Your task to perform on an android device: set default search engine in the chrome app Image 0: 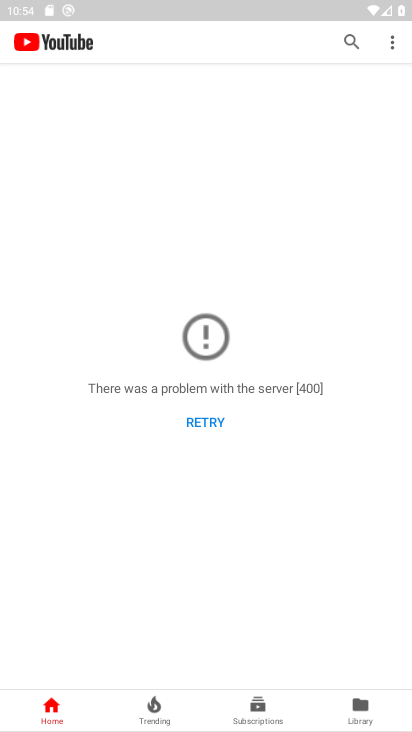
Step 0: press home button
Your task to perform on an android device: set default search engine in the chrome app Image 1: 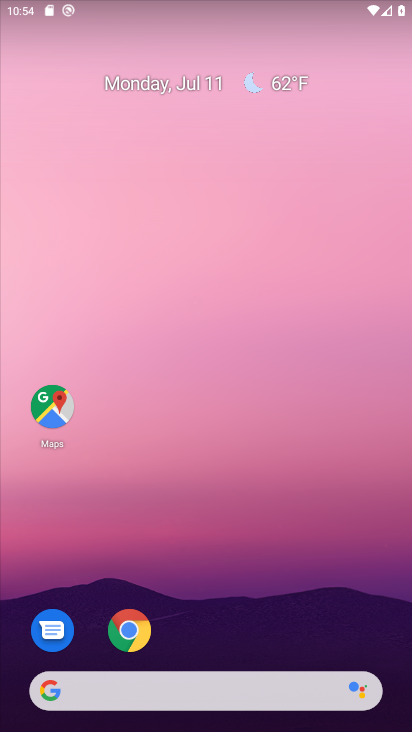
Step 1: click (139, 618)
Your task to perform on an android device: set default search engine in the chrome app Image 2: 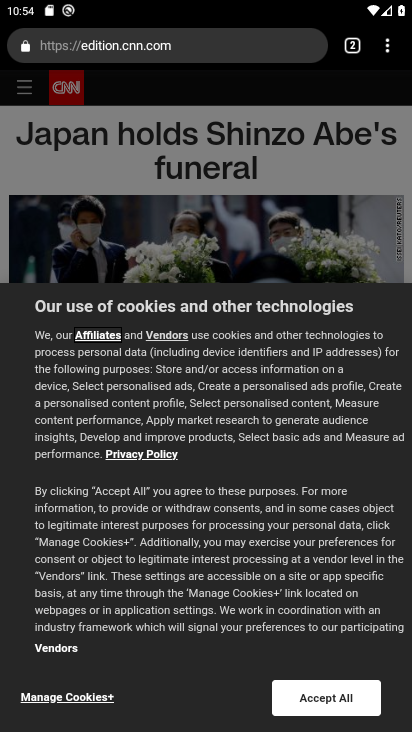
Step 2: click (386, 52)
Your task to perform on an android device: set default search engine in the chrome app Image 3: 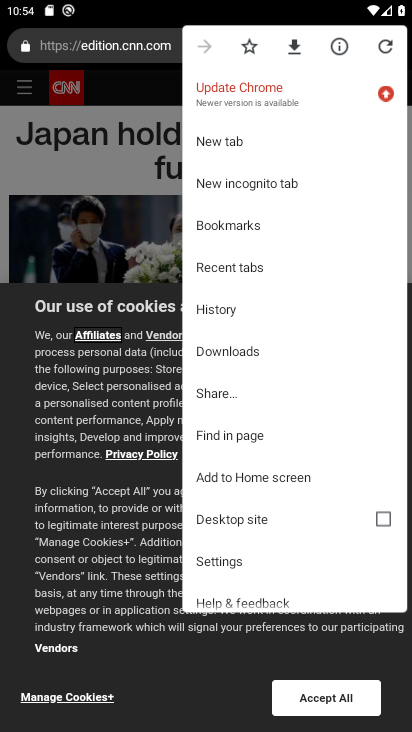
Step 3: click (225, 559)
Your task to perform on an android device: set default search engine in the chrome app Image 4: 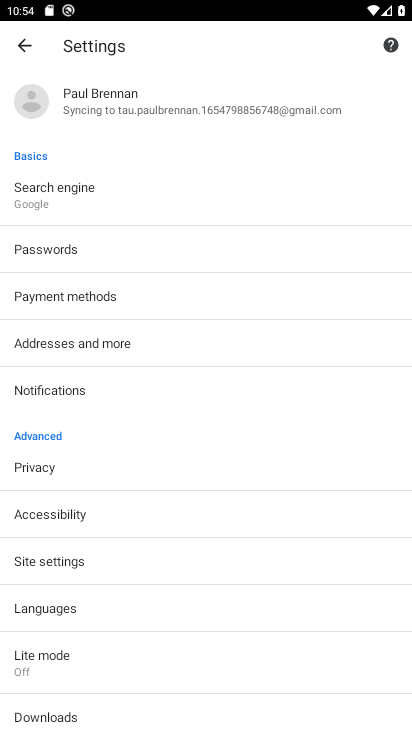
Step 4: click (103, 201)
Your task to perform on an android device: set default search engine in the chrome app Image 5: 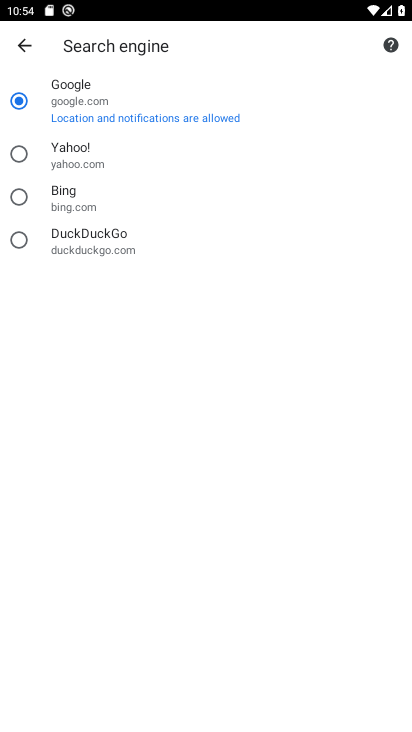
Step 5: task complete